Your task to perform on an android device: Open settings Image 0: 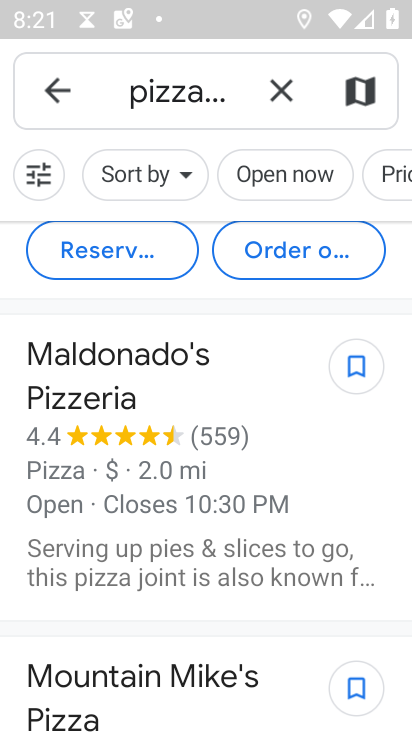
Step 0: press home button
Your task to perform on an android device: Open settings Image 1: 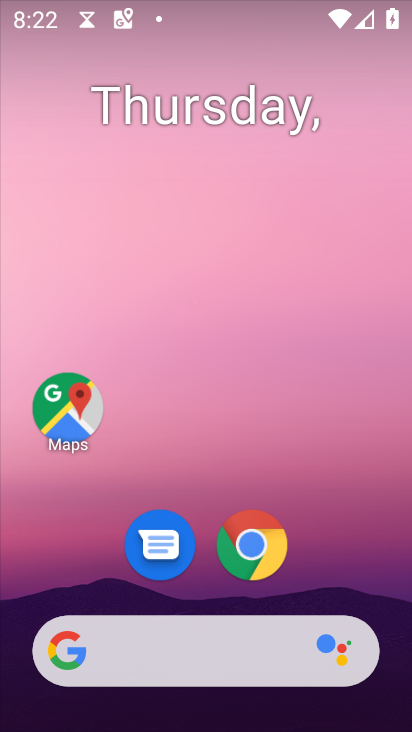
Step 1: drag from (212, 487) to (199, 44)
Your task to perform on an android device: Open settings Image 2: 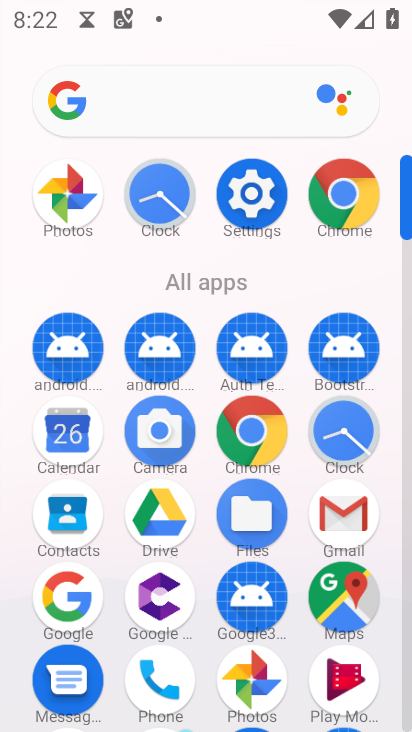
Step 2: click (251, 196)
Your task to perform on an android device: Open settings Image 3: 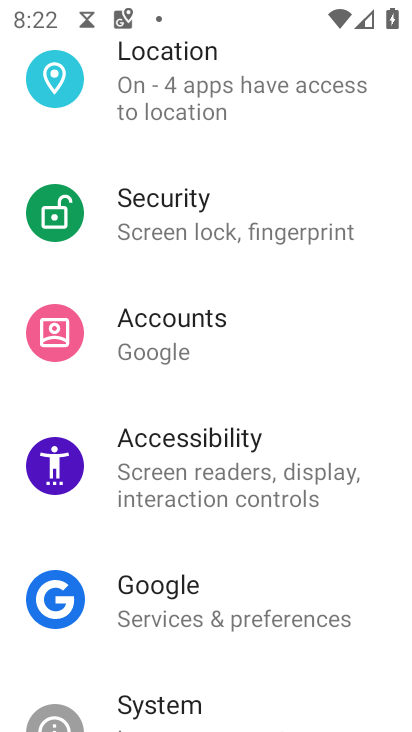
Step 3: task complete